Your task to perform on an android device: Open privacy settings Image 0: 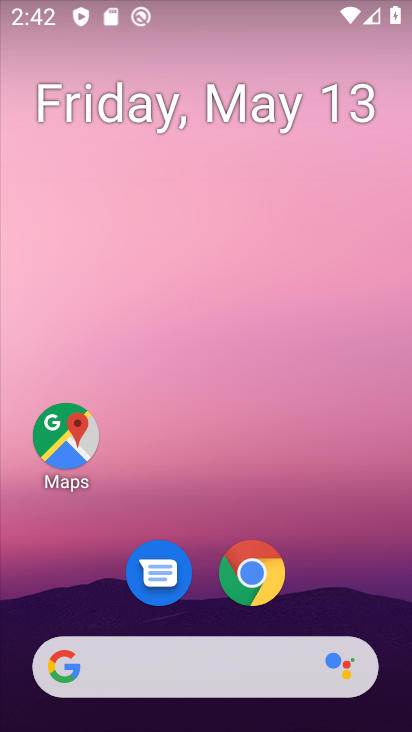
Step 0: click (269, 583)
Your task to perform on an android device: Open privacy settings Image 1: 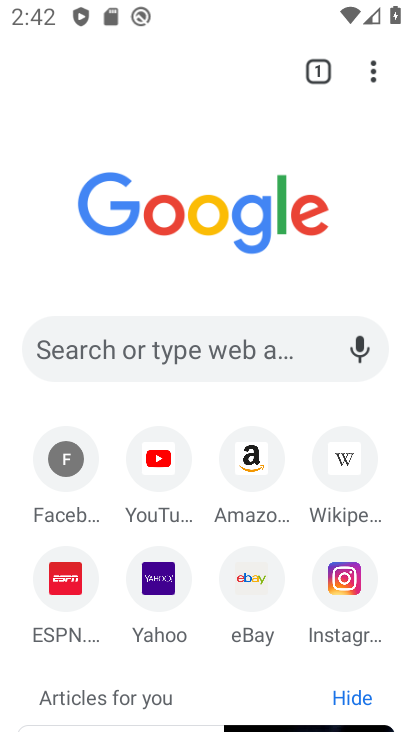
Step 1: drag from (376, 84) to (246, 606)
Your task to perform on an android device: Open privacy settings Image 2: 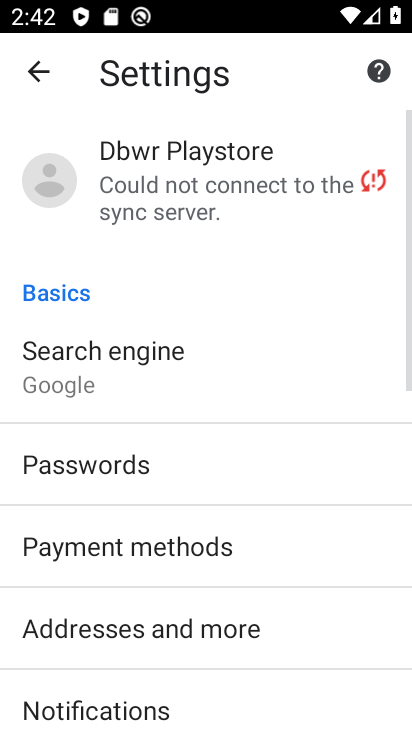
Step 2: drag from (139, 669) to (224, 328)
Your task to perform on an android device: Open privacy settings Image 3: 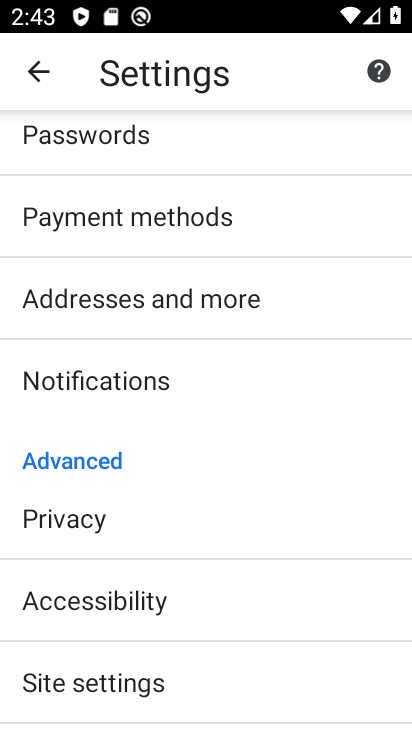
Step 3: click (128, 525)
Your task to perform on an android device: Open privacy settings Image 4: 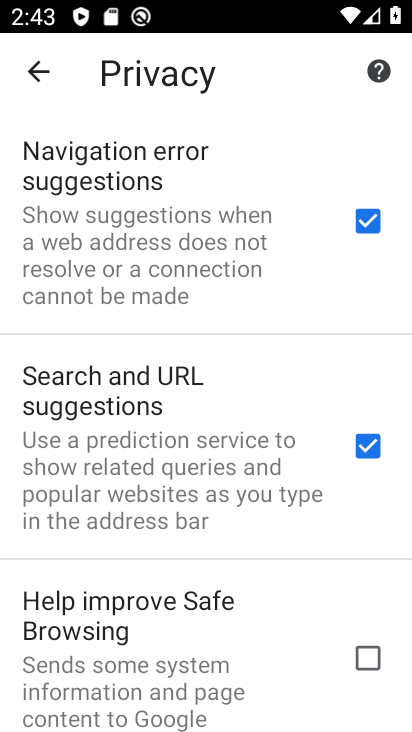
Step 4: task complete